Your task to perform on an android device: toggle sleep mode Image 0: 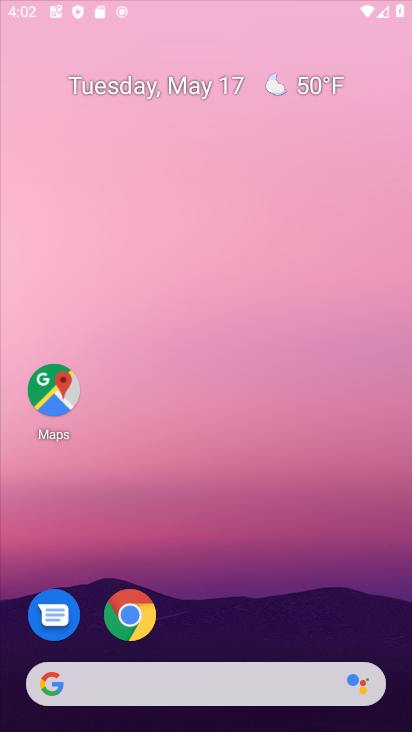
Step 0: drag from (324, 661) to (227, 136)
Your task to perform on an android device: toggle sleep mode Image 1: 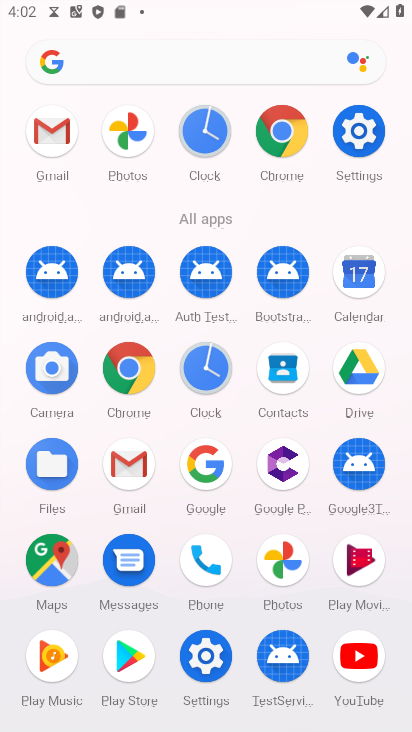
Step 1: click (360, 142)
Your task to perform on an android device: toggle sleep mode Image 2: 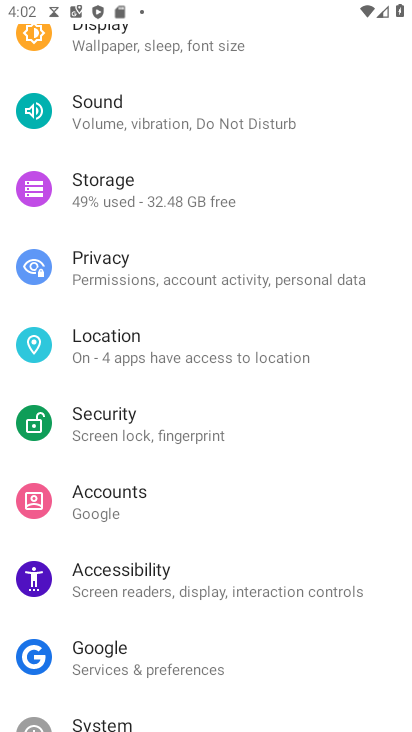
Step 2: drag from (140, 144) to (157, 450)
Your task to perform on an android device: toggle sleep mode Image 3: 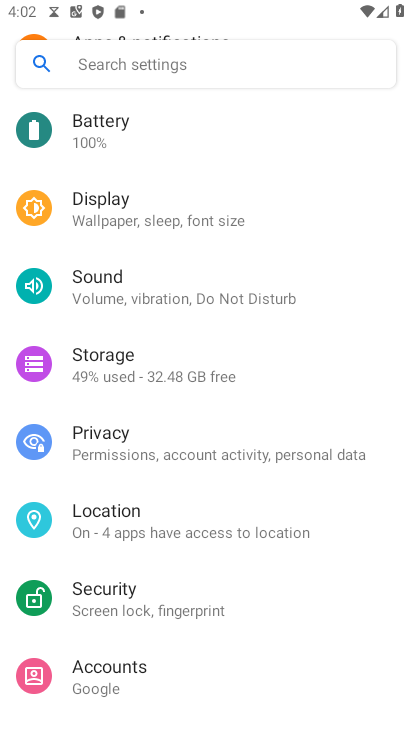
Step 3: click (130, 223)
Your task to perform on an android device: toggle sleep mode Image 4: 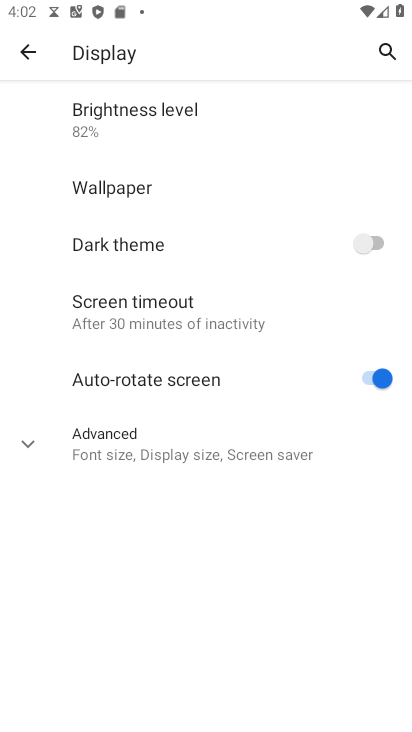
Step 4: click (108, 321)
Your task to perform on an android device: toggle sleep mode Image 5: 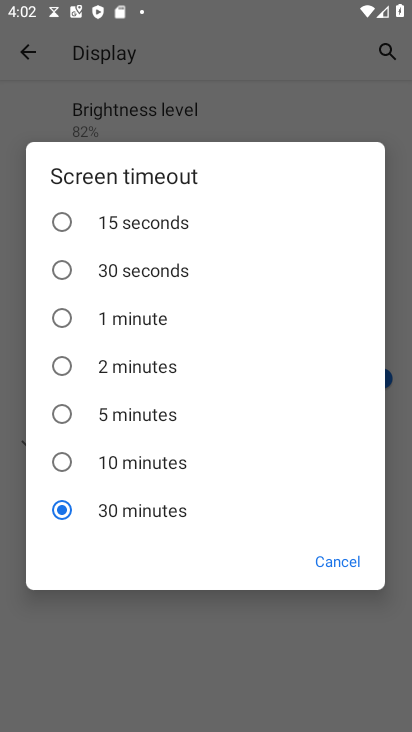
Step 5: click (65, 462)
Your task to perform on an android device: toggle sleep mode Image 6: 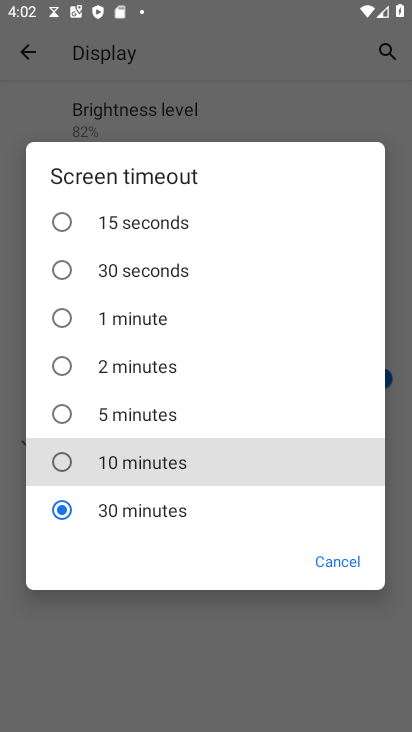
Step 6: click (63, 462)
Your task to perform on an android device: toggle sleep mode Image 7: 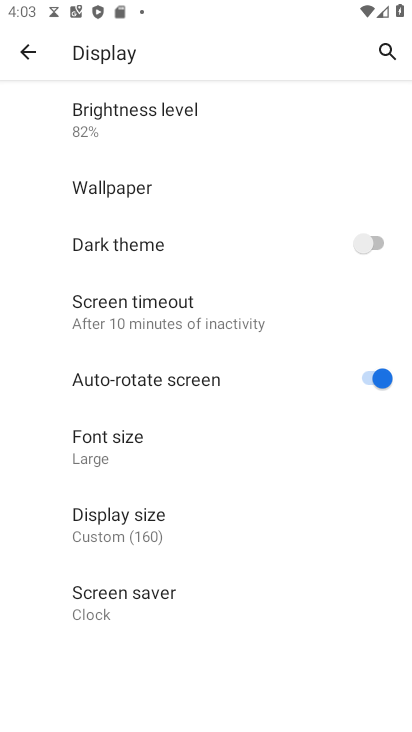
Step 7: task complete